Your task to perform on an android device: visit the assistant section in the google photos Image 0: 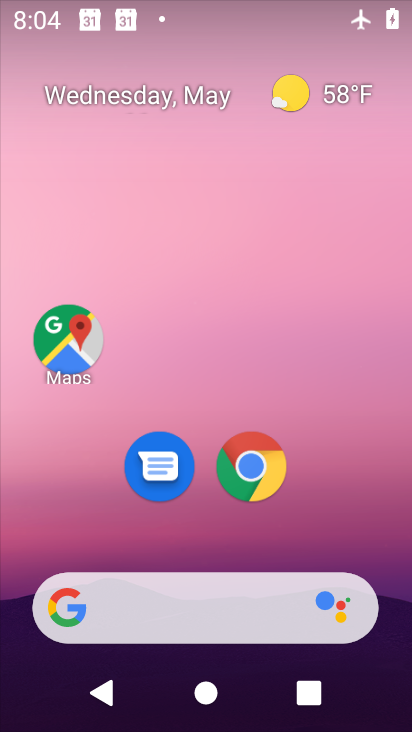
Step 0: press home button
Your task to perform on an android device: visit the assistant section in the google photos Image 1: 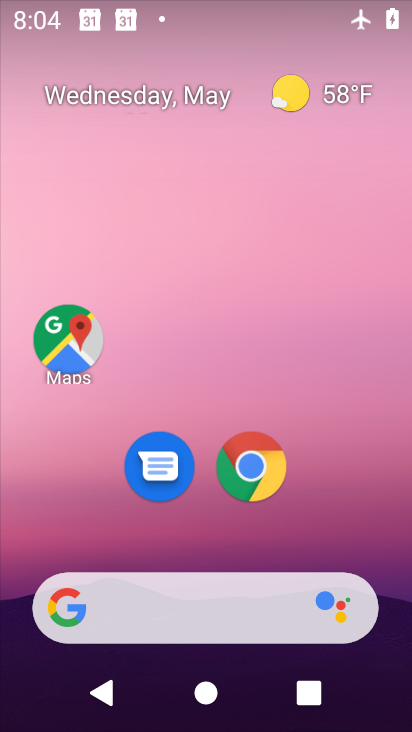
Step 1: drag from (202, 538) to (229, 17)
Your task to perform on an android device: visit the assistant section in the google photos Image 2: 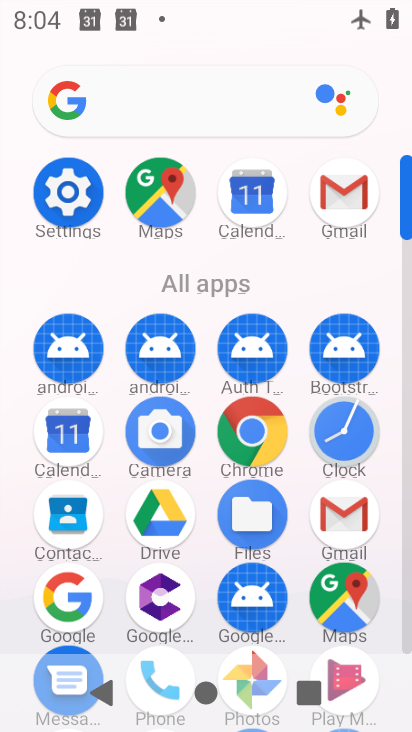
Step 2: drag from (202, 550) to (233, 139)
Your task to perform on an android device: visit the assistant section in the google photos Image 3: 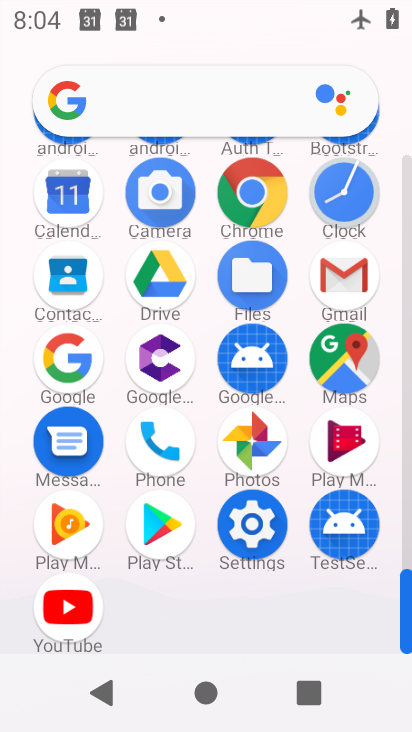
Step 3: click (248, 437)
Your task to perform on an android device: visit the assistant section in the google photos Image 4: 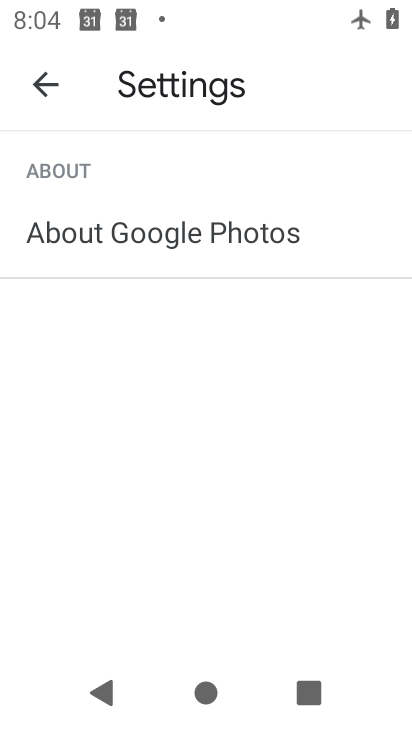
Step 4: click (59, 94)
Your task to perform on an android device: visit the assistant section in the google photos Image 5: 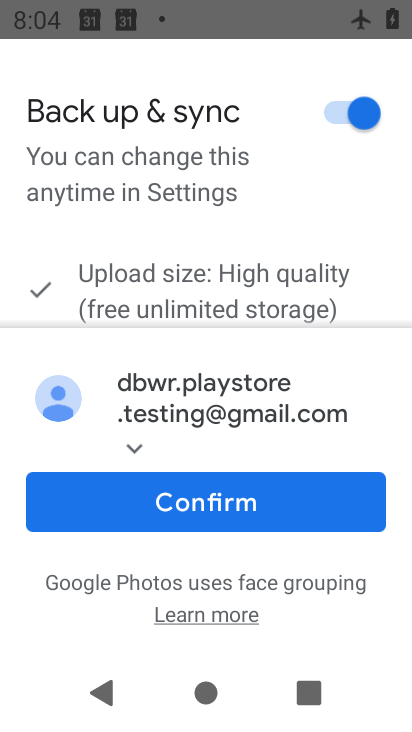
Step 5: click (219, 505)
Your task to perform on an android device: visit the assistant section in the google photos Image 6: 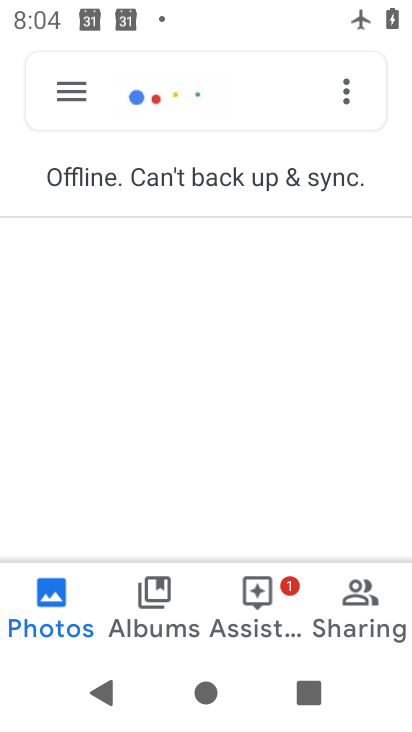
Step 6: click (259, 587)
Your task to perform on an android device: visit the assistant section in the google photos Image 7: 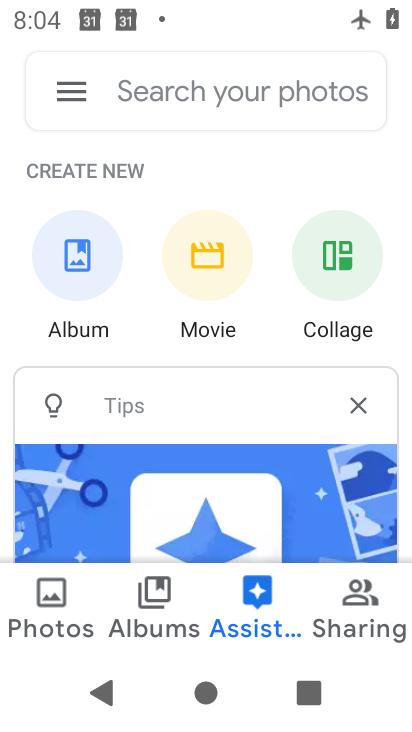
Step 7: task complete